Your task to perform on an android device: Set the phone to "Do not disturb". Image 0: 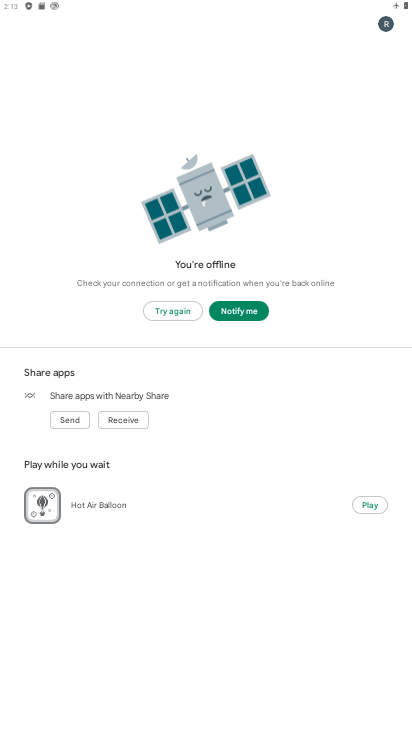
Step 0: drag from (238, 4) to (159, 641)
Your task to perform on an android device: Set the phone to "Do not disturb". Image 1: 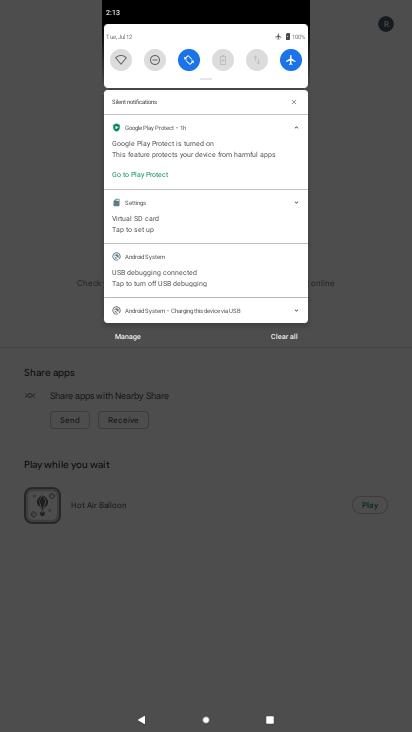
Step 1: click (156, 53)
Your task to perform on an android device: Set the phone to "Do not disturb". Image 2: 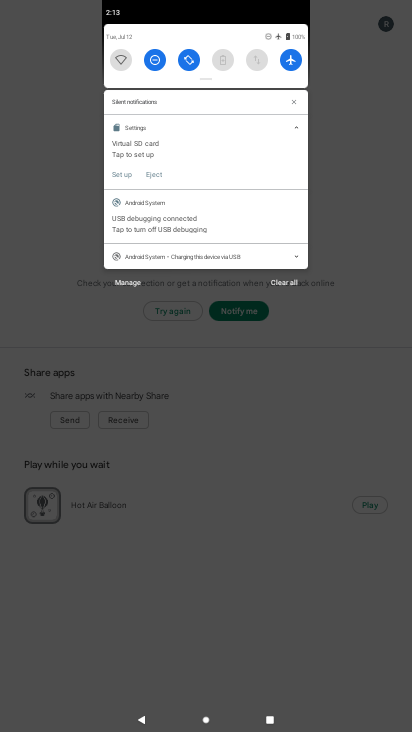
Step 2: task complete